Your task to perform on an android device: turn smart compose on in the gmail app Image 0: 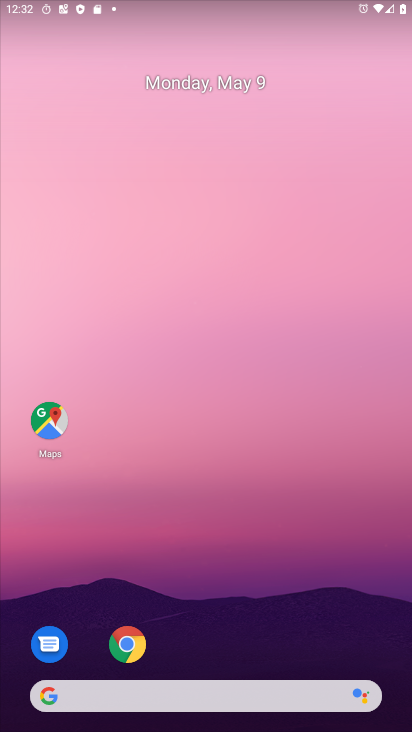
Step 0: drag from (156, 195) to (108, 28)
Your task to perform on an android device: turn smart compose on in the gmail app Image 1: 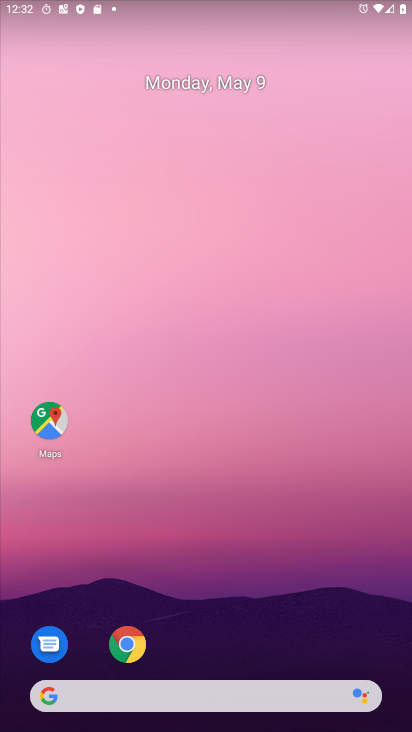
Step 1: drag from (374, 654) to (216, 190)
Your task to perform on an android device: turn smart compose on in the gmail app Image 2: 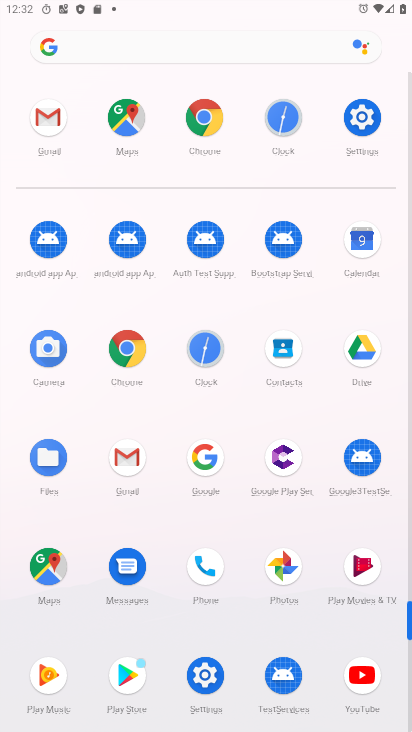
Step 2: click (128, 454)
Your task to perform on an android device: turn smart compose on in the gmail app Image 3: 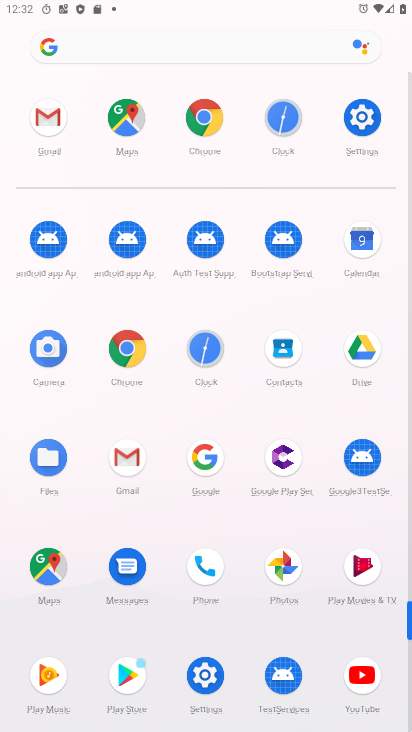
Step 3: click (128, 454)
Your task to perform on an android device: turn smart compose on in the gmail app Image 4: 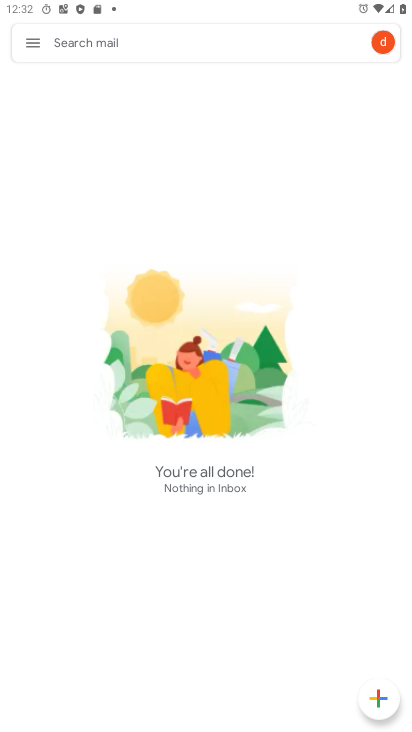
Step 4: click (35, 54)
Your task to perform on an android device: turn smart compose on in the gmail app Image 5: 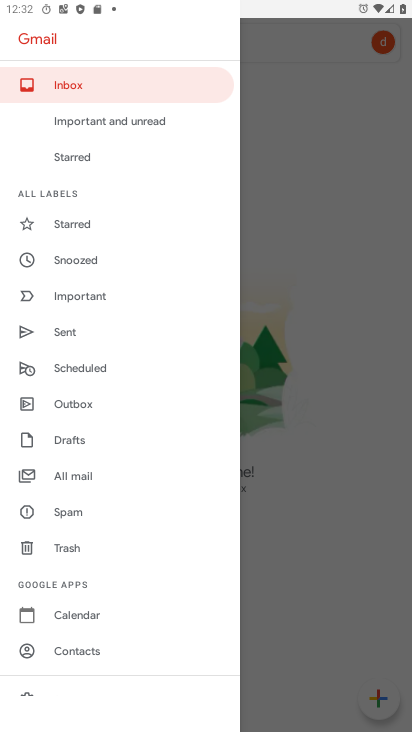
Step 5: drag from (0, 260) to (13, 220)
Your task to perform on an android device: turn smart compose on in the gmail app Image 6: 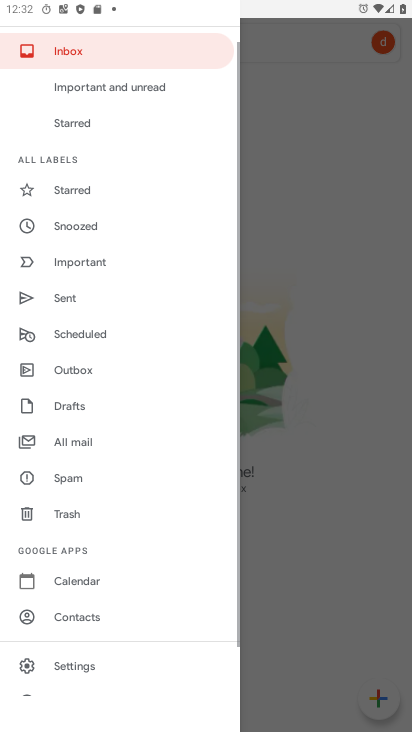
Step 6: drag from (133, 575) to (81, 177)
Your task to perform on an android device: turn smart compose on in the gmail app Image 7: 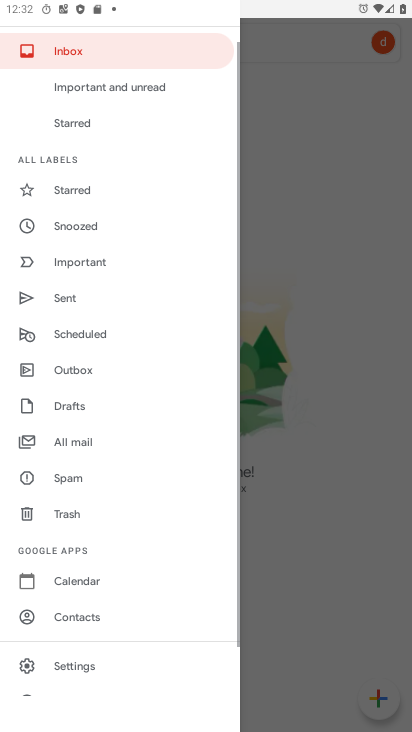
Step 7: click (72, 667)
Your task to perform on an android device: turn smart compose on in the gmail app Image 8: 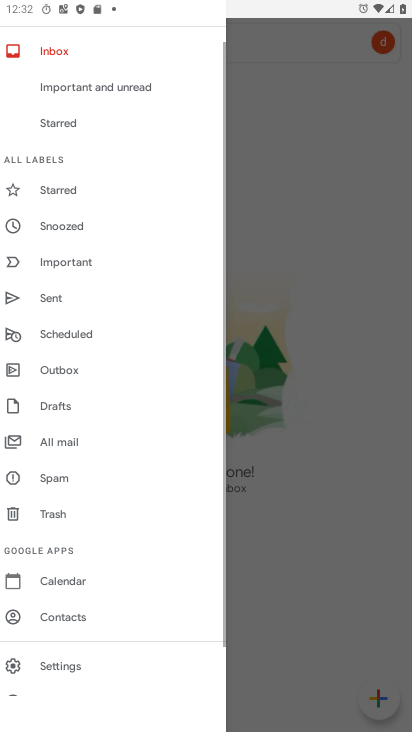
Step 8: click (73, 669)
Your task to perform on an android device: turn smart compose on in the gmail app Image 9: 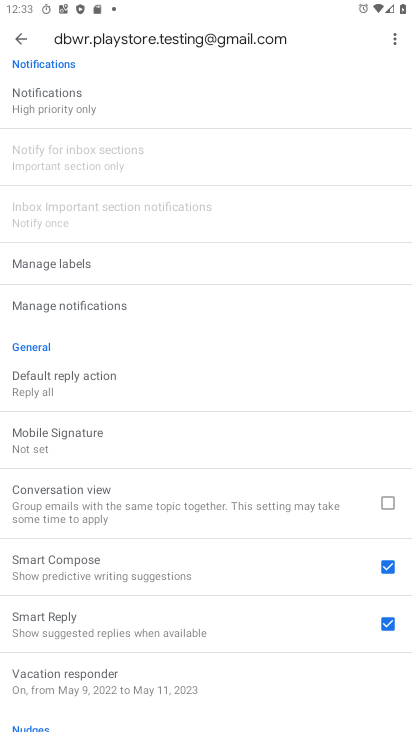
Step 9: click (381, 565)
Your task to perform on an android device: turn smart compose on in the gmail app Image 10: 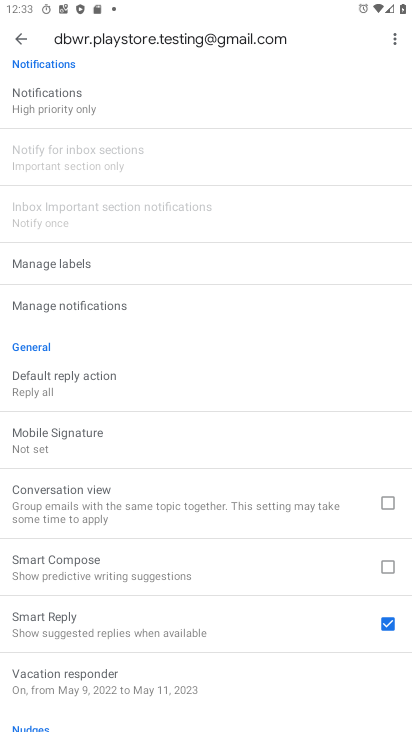
Step 10: task complete